Your task to perform on an android device: What's on my calendar tomorrow? Image 0: 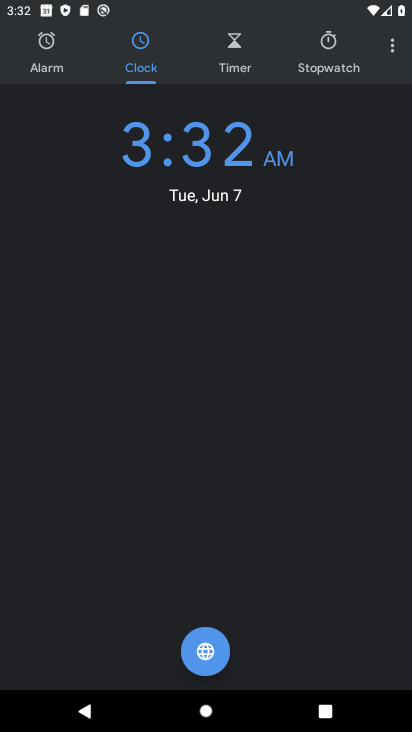
Step 0: press home button
Your task to perform on an android device: What's on my calendar tomorrow? Image 1: 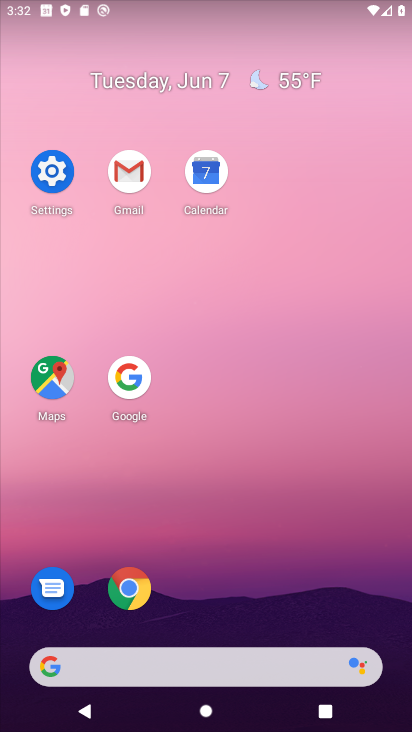
Step 1: click (206, 176)
Your task to perform on an android device: What's on my calendar tomorrow? Image 2: 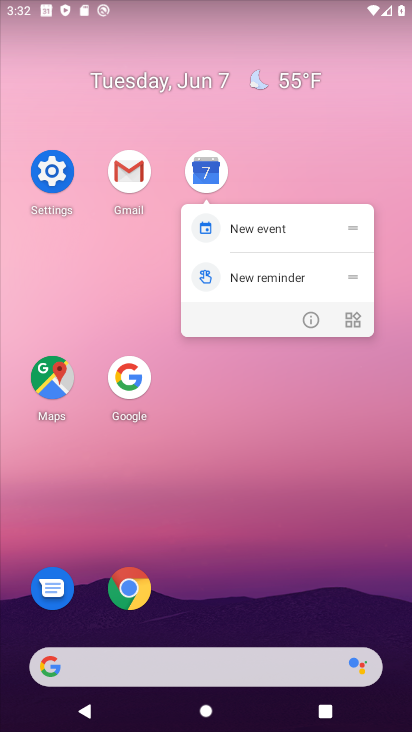
Step 2: click (206, 176)
Your task to perform on an android device: What's on my calendar tomorrow? Image 3: 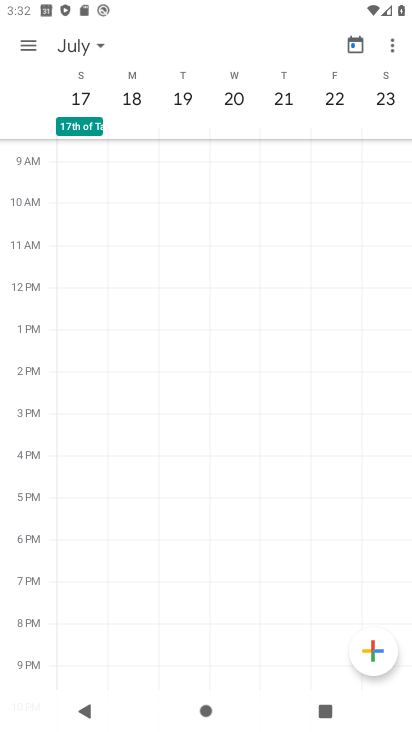
Step 3: click (93, 46)
Your task to perform on an android device: What's on my calendar tomorrow? Image 4: 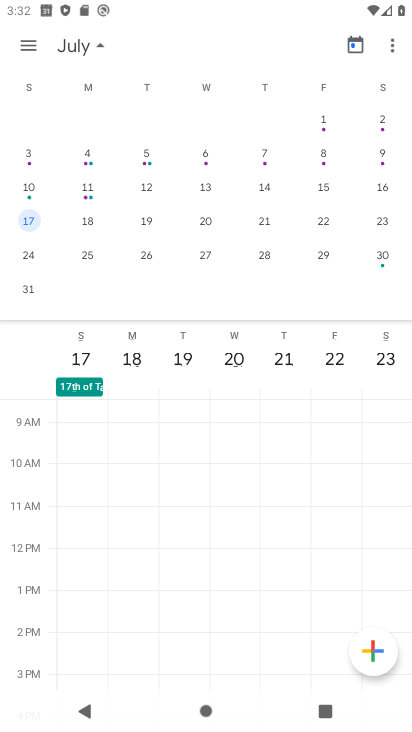
Step 4: task complete